Your task to perform on an android device: uninstall "Google Play services" Image 0: 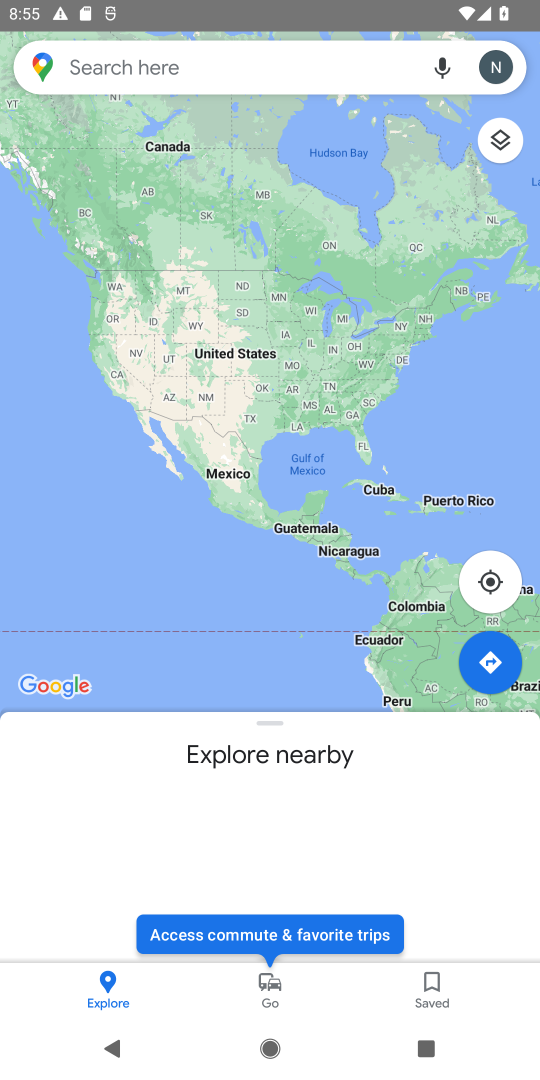
Step 0: press home button
Your task to perform on an android device: uninstall "Google Play services" Image 1: 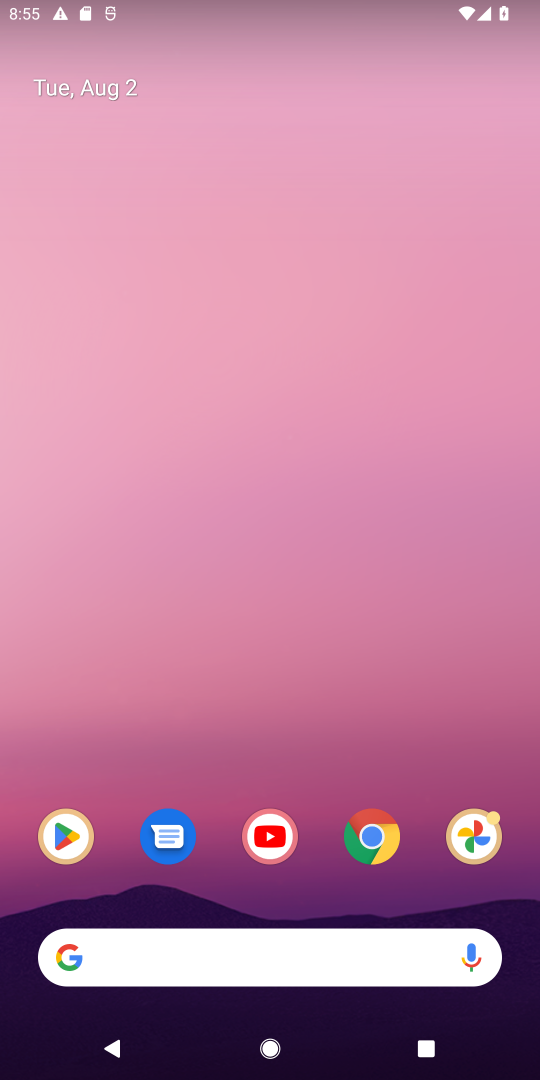
Step 1: drag from (448, 905) to (286, 49)
Your task to perform on an android device: uninstall "Google Play services" Image 2: 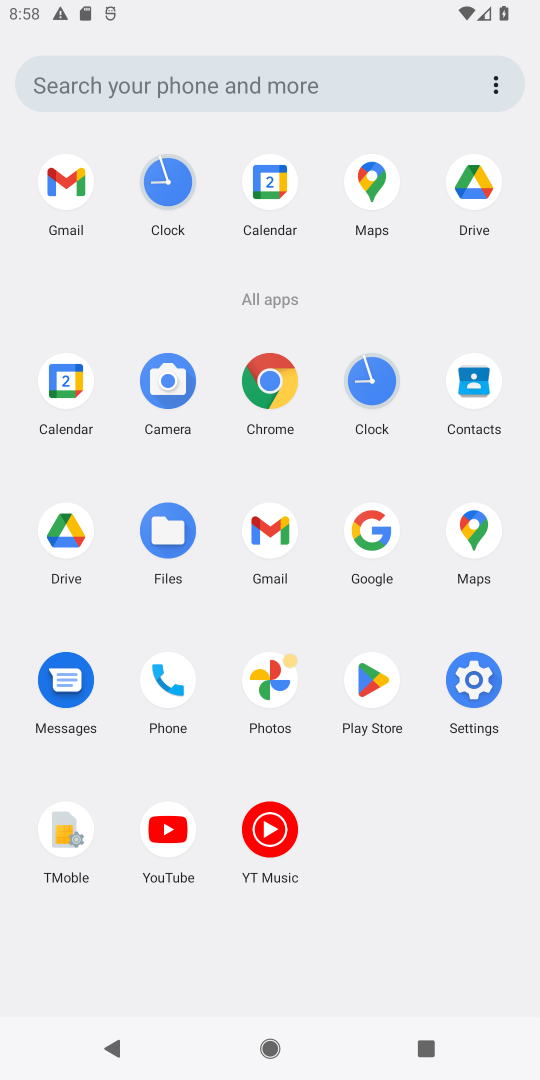
Step 2: click (393, 670)
Your task to perform on an android device: uninstall "Google Play services" Image 3: 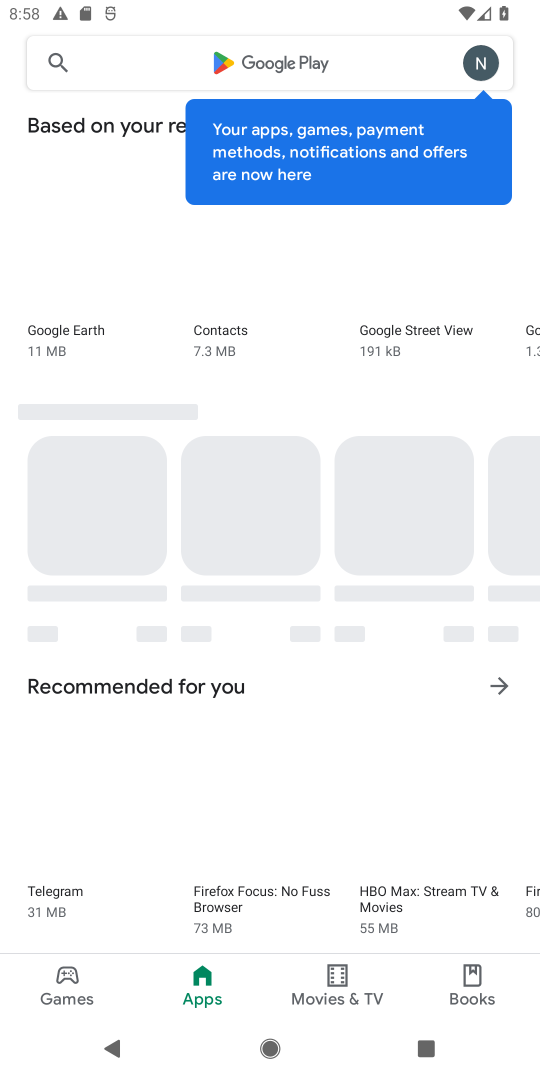
Step 3: click (187, 48)
Your task to perform on an android device: uninstall "Google Play services" Image 4: 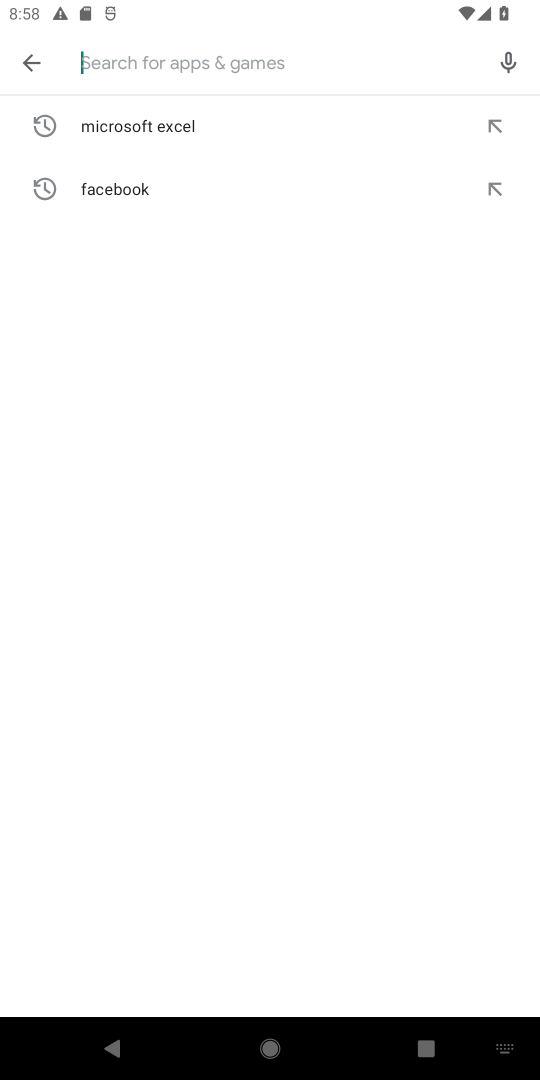
Step 4: type "Google Play services"
Your task to perform on an android device: uninstall "Google Play services" Image 5: 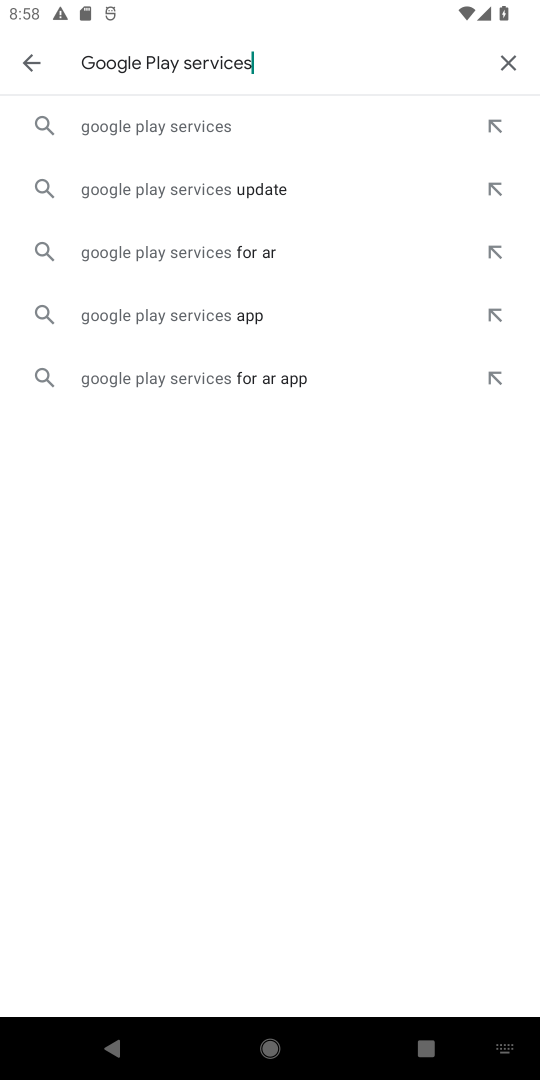
Step 5: click (141, 120)
Your task to perform on an android device: uninstall "Google Play services" Image 6: 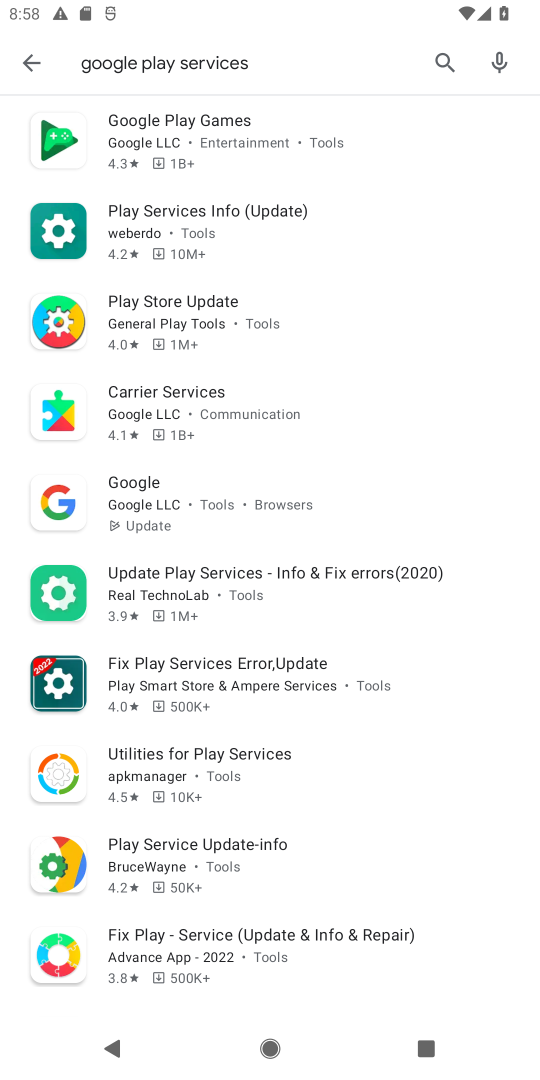
Step 6: task complete